Your task to perform on an android device: Open Yahoo.com Image 0: 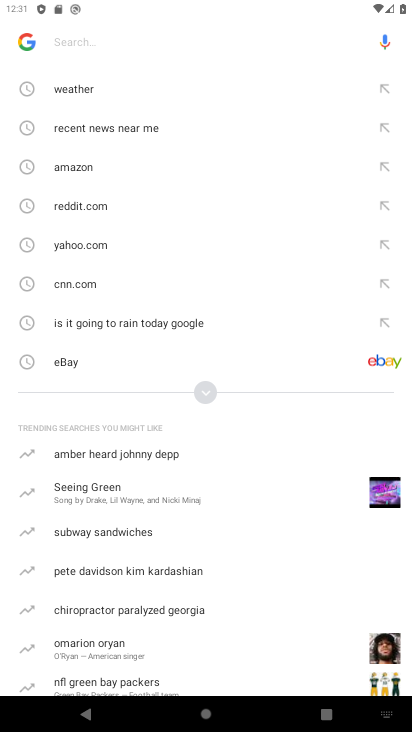
Step 0: press home button
Your task to perform on an android device: Open Yahoo.com Image 1: 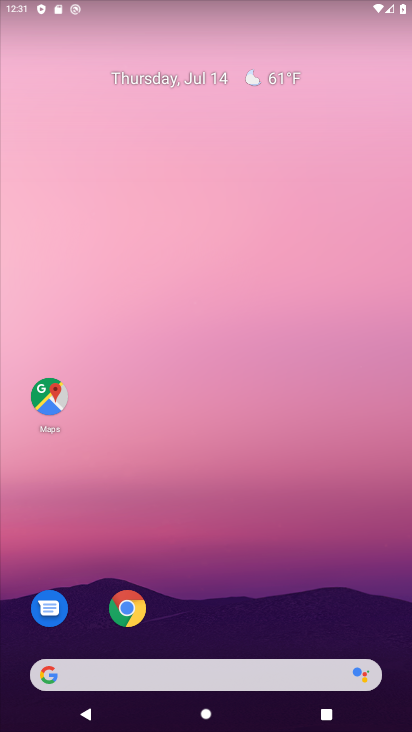
Step 1: drag from (343, 605) to (350, 56)
Your task to perform on an android device: Open Yahoo.com Image 2: 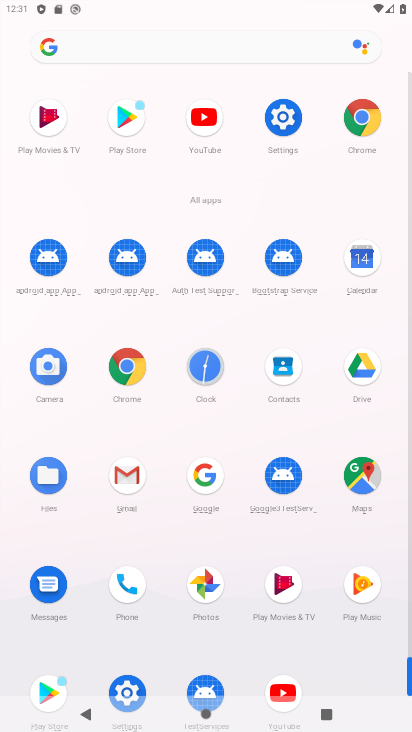
Step 2: click (128, 369)
Your task to perform on an android device: Open Yahoo.com Image 3: 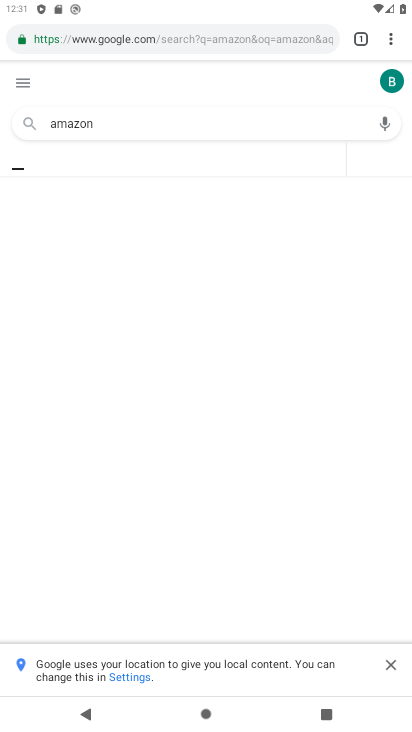
Step 3: click (239, 38)
Your task to perform on an android device: Open Yahoo.com Image 4: 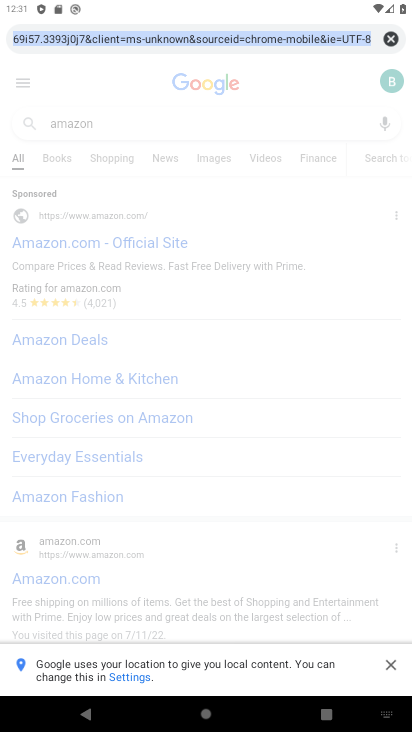
Step 4: type "yahoo.com"
Your task to perform on an android device: Open Yahoo.com Image 5: 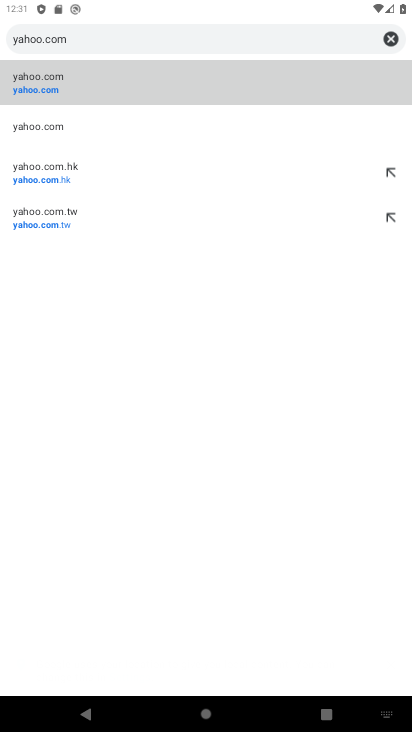
Step 5: click (223, 82)
Your task to perform on an android device: Open Yahoo.com Image 6: 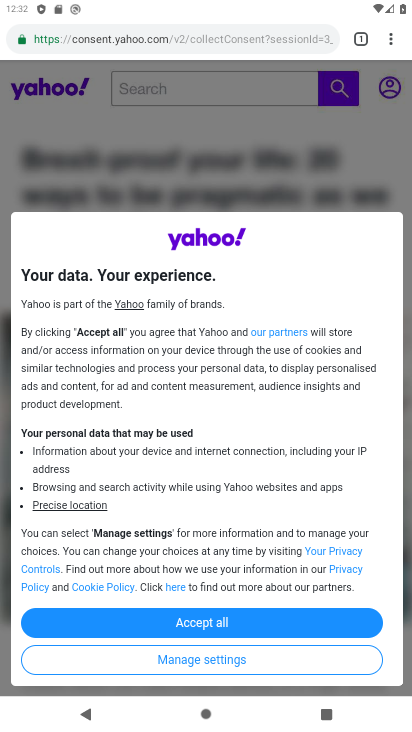
Step 6: task complete